Your task to perform on an android device: turn off smart reply in the gmail app Image 0: 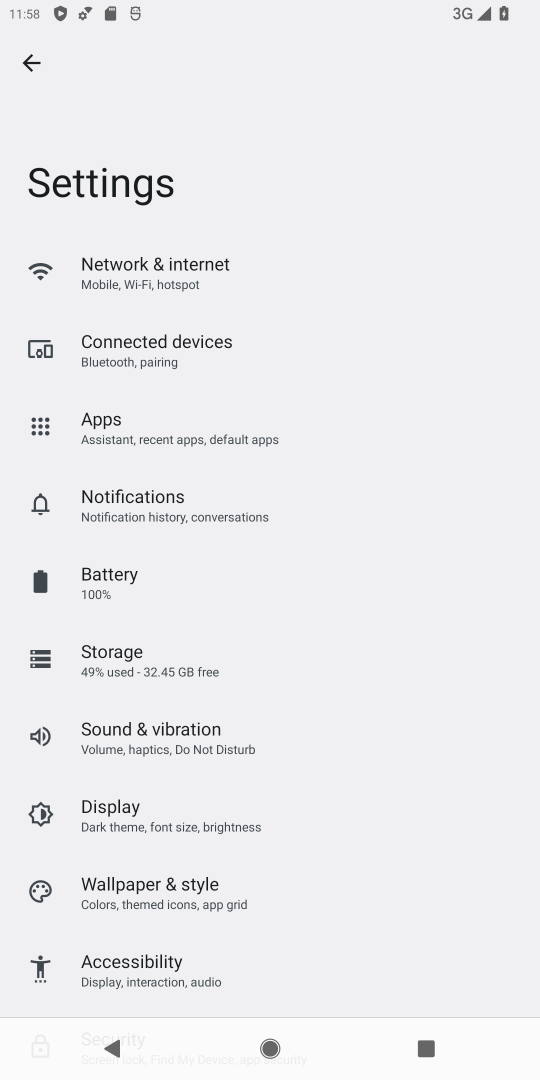
Step 0: press home button
Your task to perform on an android device: turn off smart reply in the gmail app Image 1: 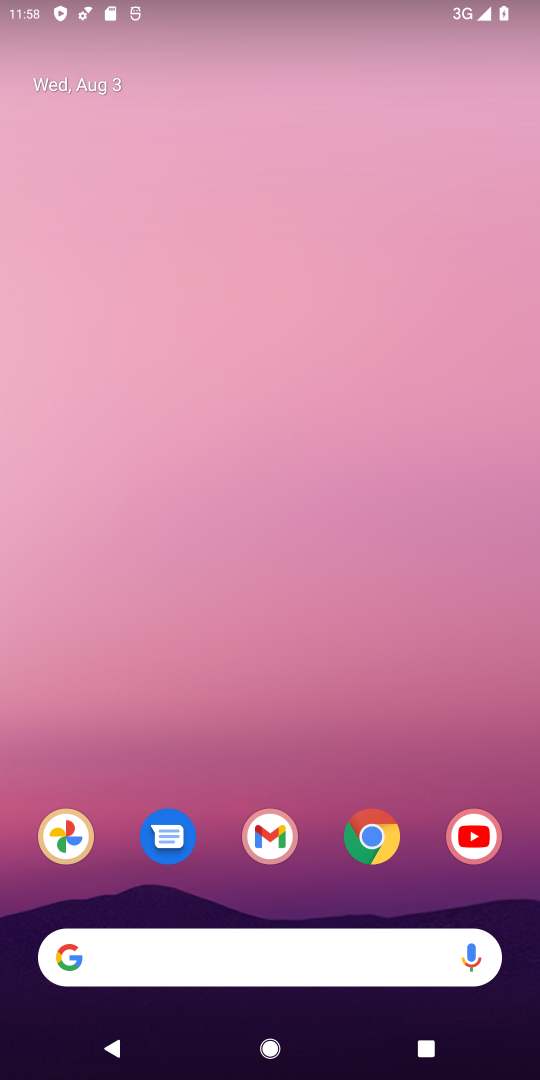
Step 1: drag from (221, 879) to (258, 224)
Your task to perform on an android device: turn off smart reply in the gmail app Image 2: 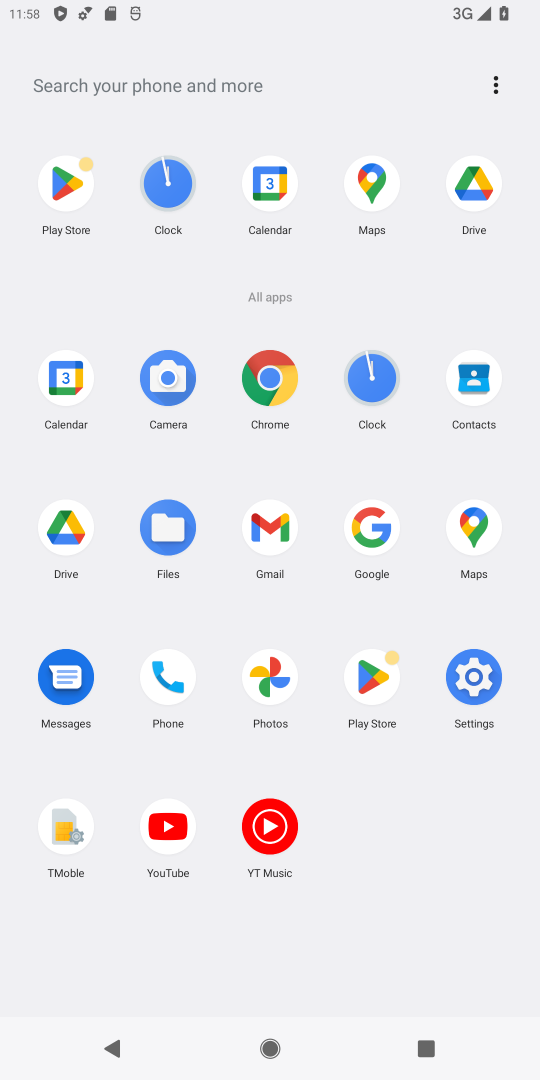
Step 2: click (277, 527)
Your task to perform on an android device: turn off smart reply in the gmail app Image 3: 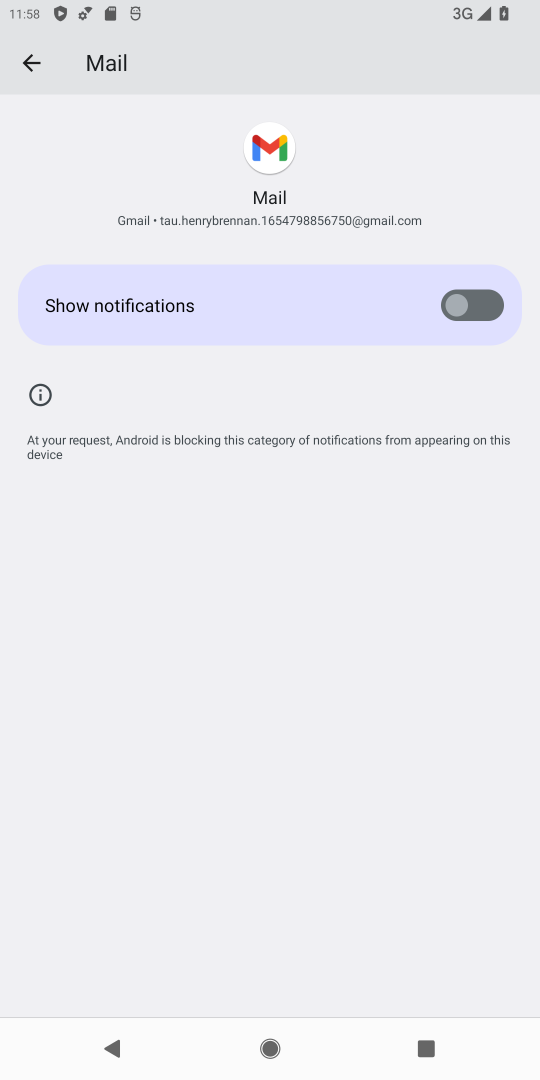
Step 3: drag from (364, 400) to (300, 848)
Your task to perform on an android device: turn off smart reply in the gmail app Image 4: 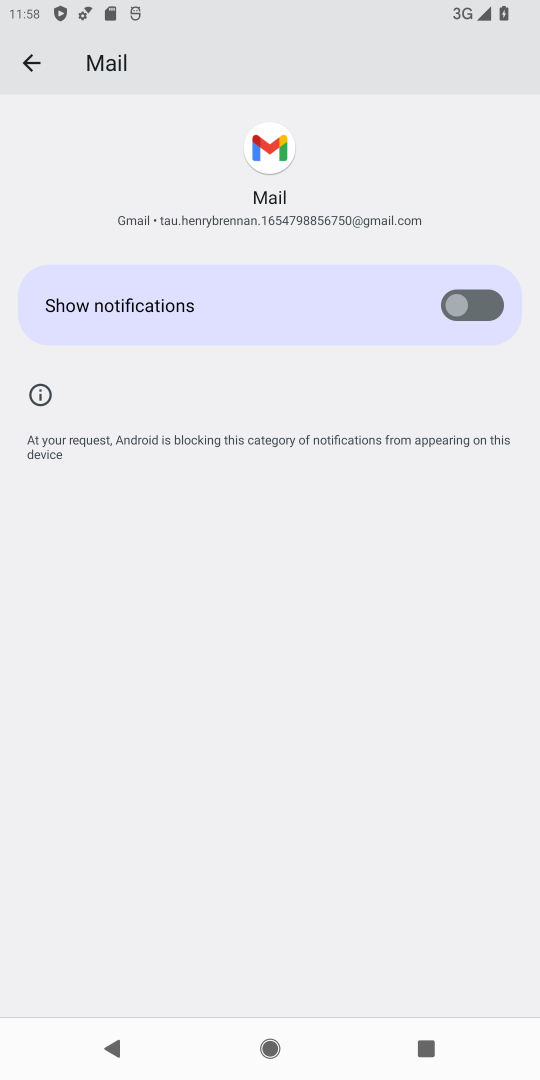
Step 4: drag from (253, 502) to (259, 939)
Your task to perform on an android device: turn off smart reply in the gmail app Image 5: 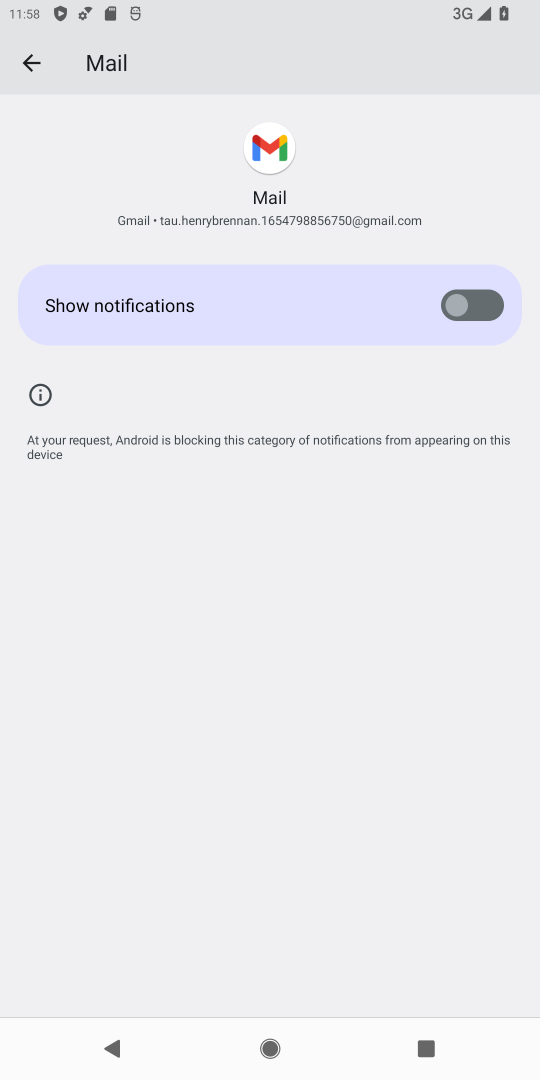
Step 5: drag from (254, 629) to (254, 915)
Your task to perform on an android device: turn off smart reply in the gmail app Image 6: 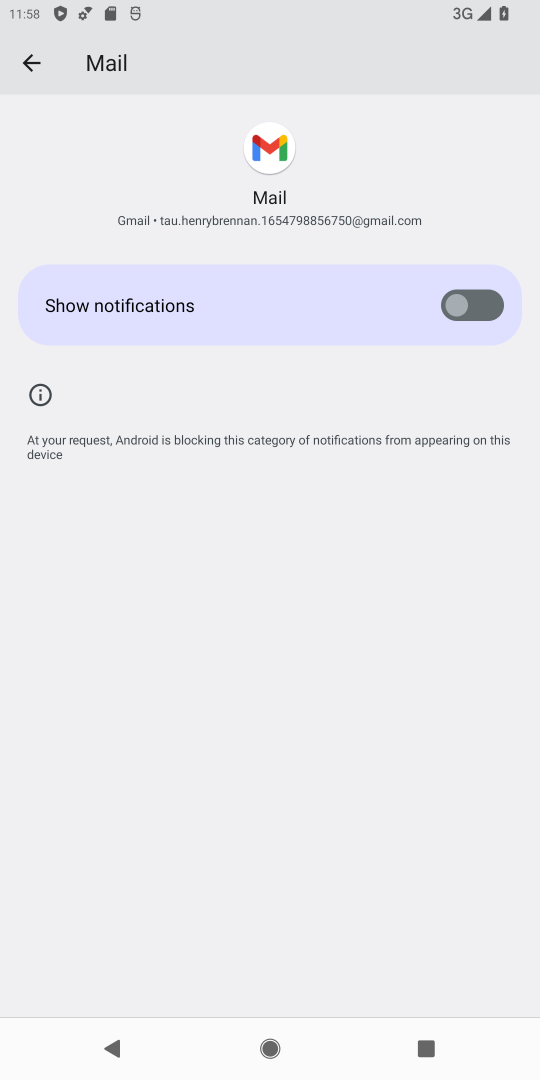
Step 6: drag from (370, 427) to (292, 699)
Your task to perform on an android device: turn off smart reply in the gmail app Image 7: 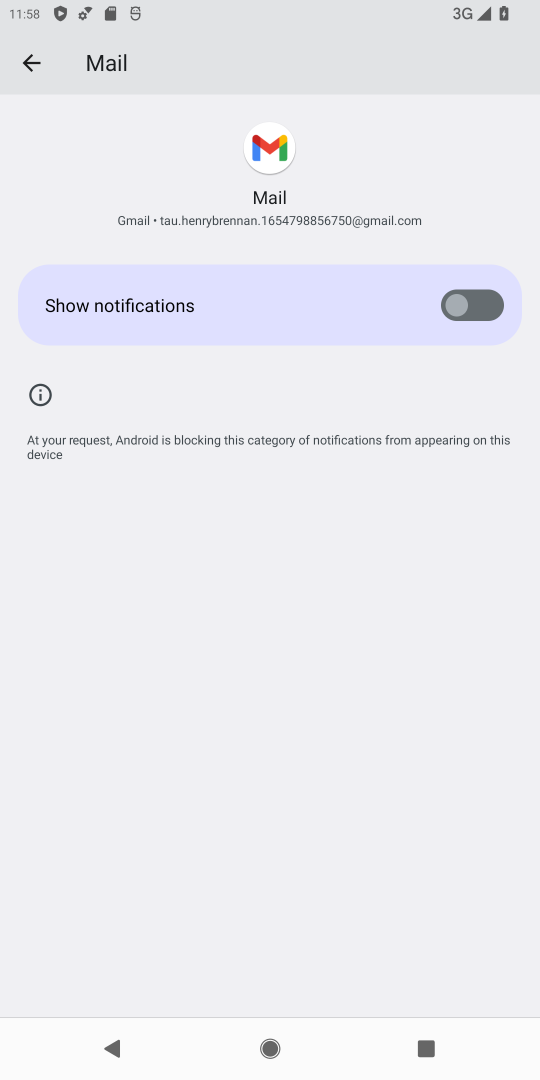
Step 7: drag from (324, 443) to (302, 668)
Your task to perform on an android device: turn off smart reply in the gmail app Image 8: 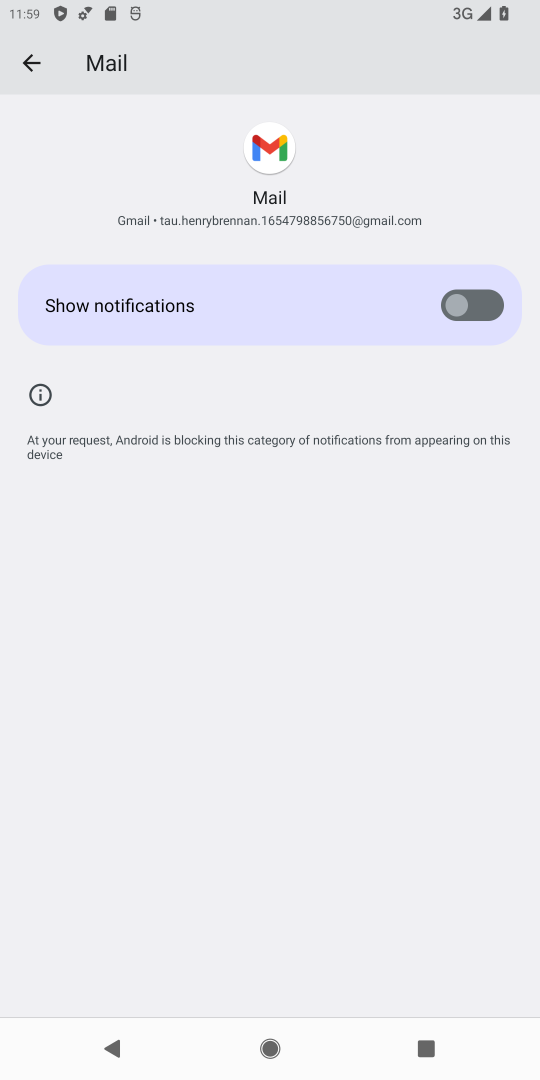
Step 8: drag from (275, 801) to (297, 476)
Your task to perform on an android device: turn off smart reply in the gmail app Image 9: 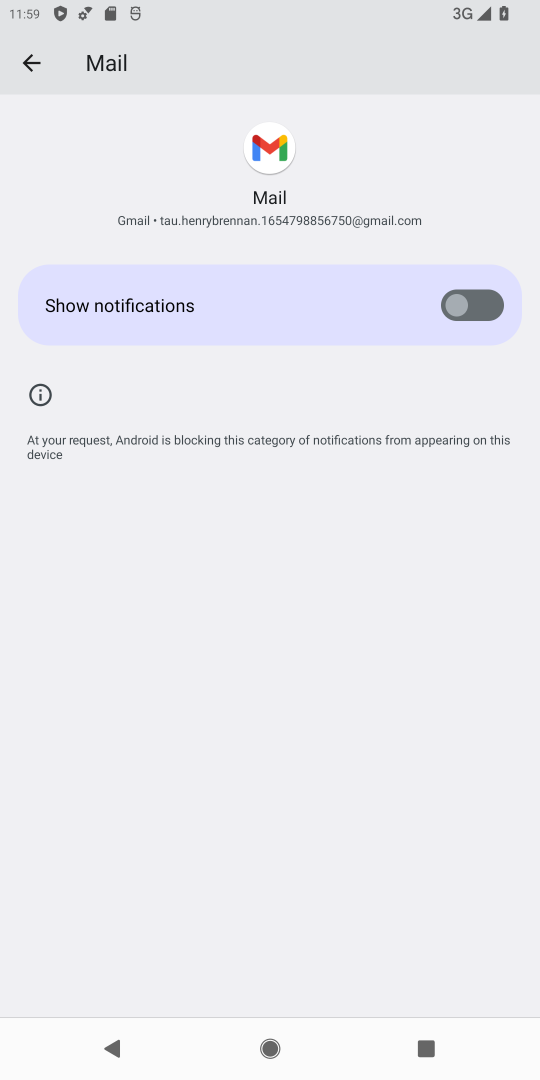
Step 9: drag from (305, 847) to (280, 689)
Your task to perform on an android device: turn off smart reply in the gmail app Image 10: 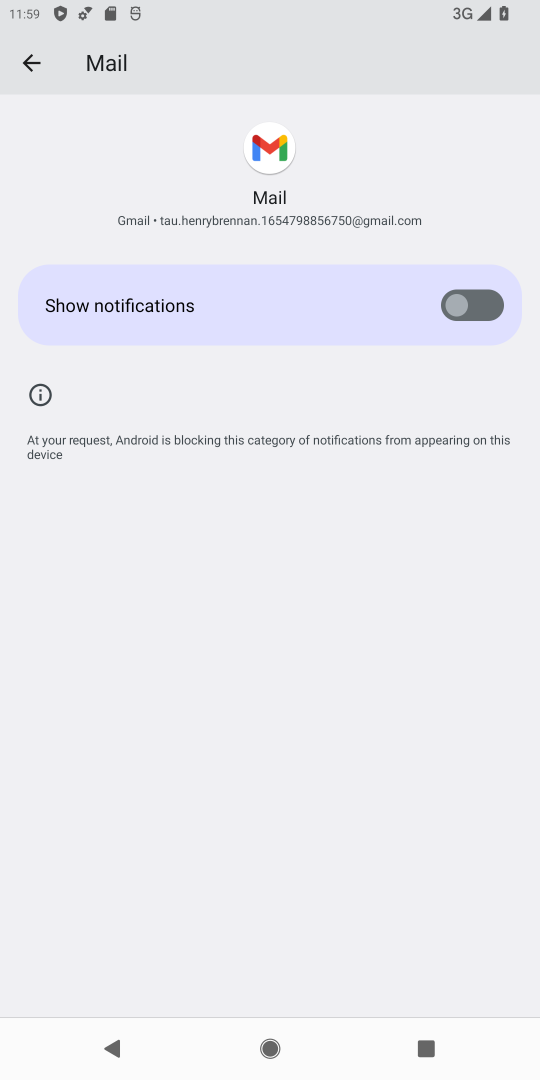
Step 10: click (25, 75)
Your task to perform on an android device: turn off smart reply in the gmail app Image 11: 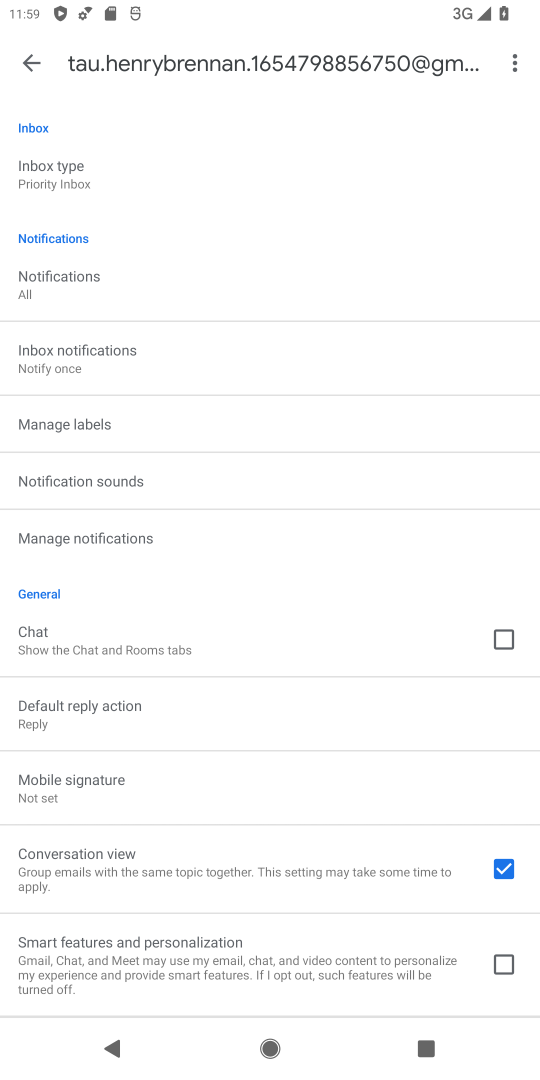
Step 11: drag from (229, 758) to (332, 82)
Your task to perform on an android device: turn off smart reply in the gmail app Image 12: 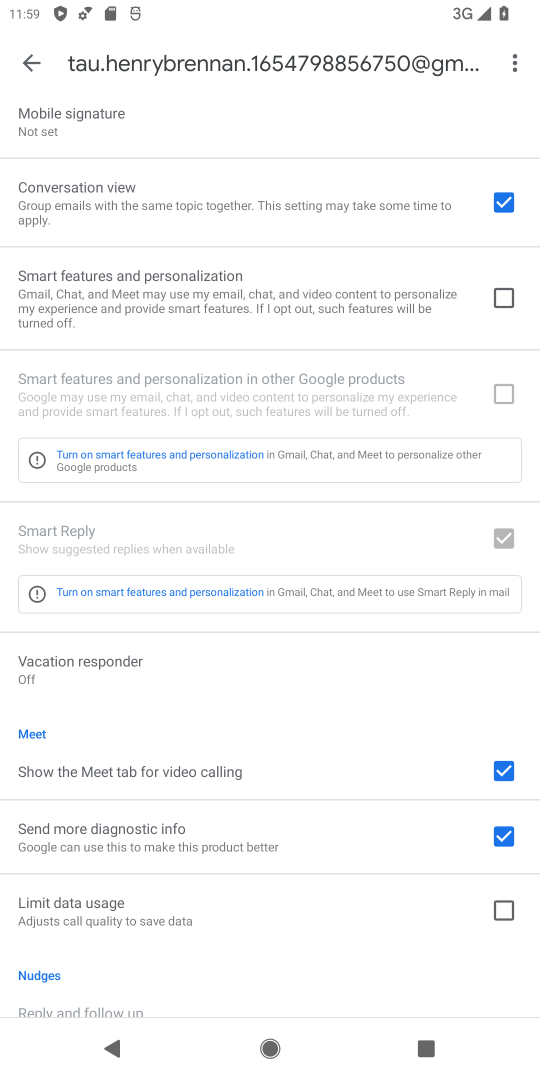
Step 12: click (470, 546)
Your task to perform on an android device: turn off smart reply in the gmail app Image 13: 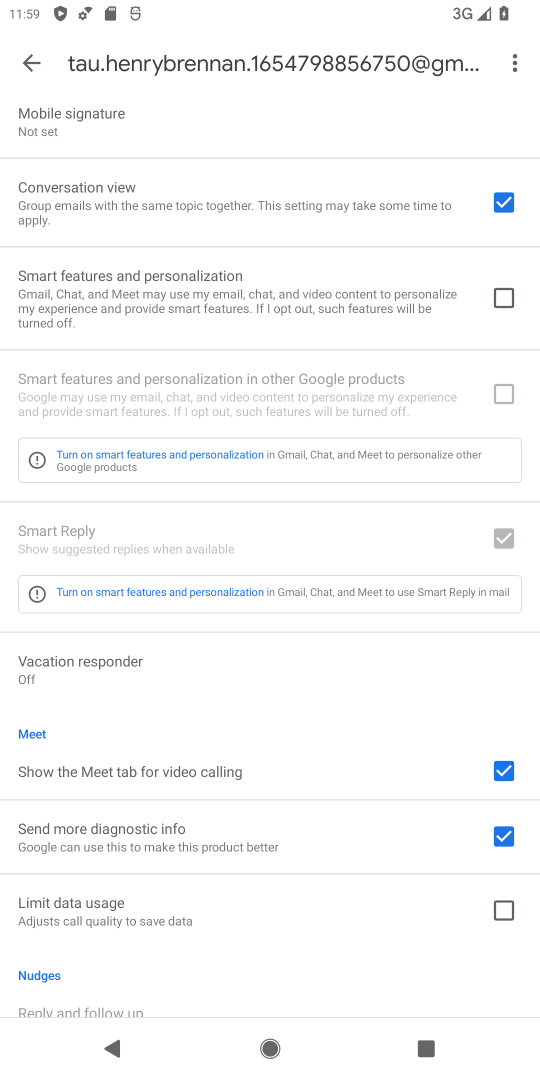
Step 13: click (497, 382)
Your task to perform on an android device: turn off smart reply in the gmail app Image 14: 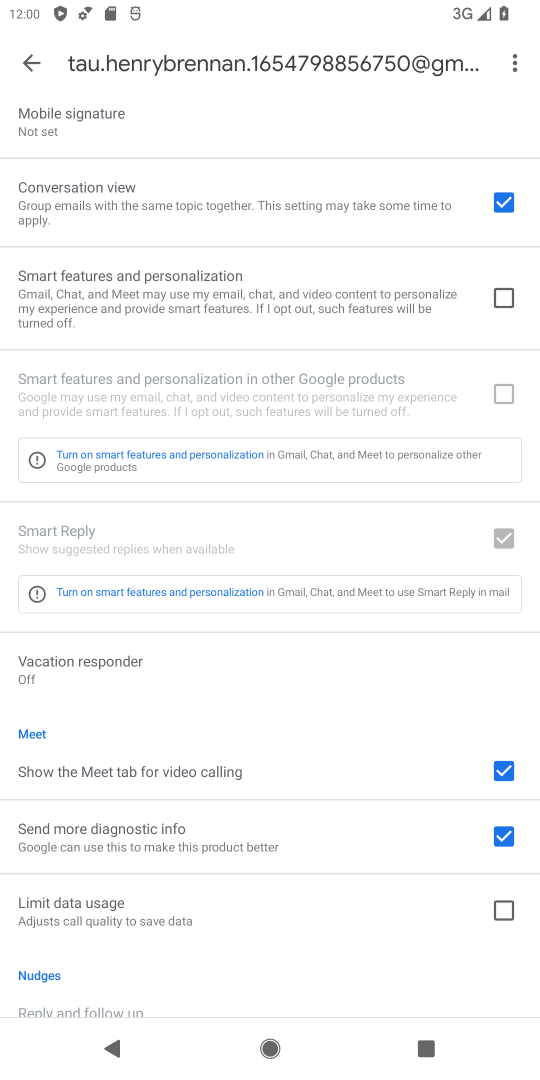
Step 14: click (491, 534)
Your task to perform on an android device: turn off smart reply in the gmail app Image 15: 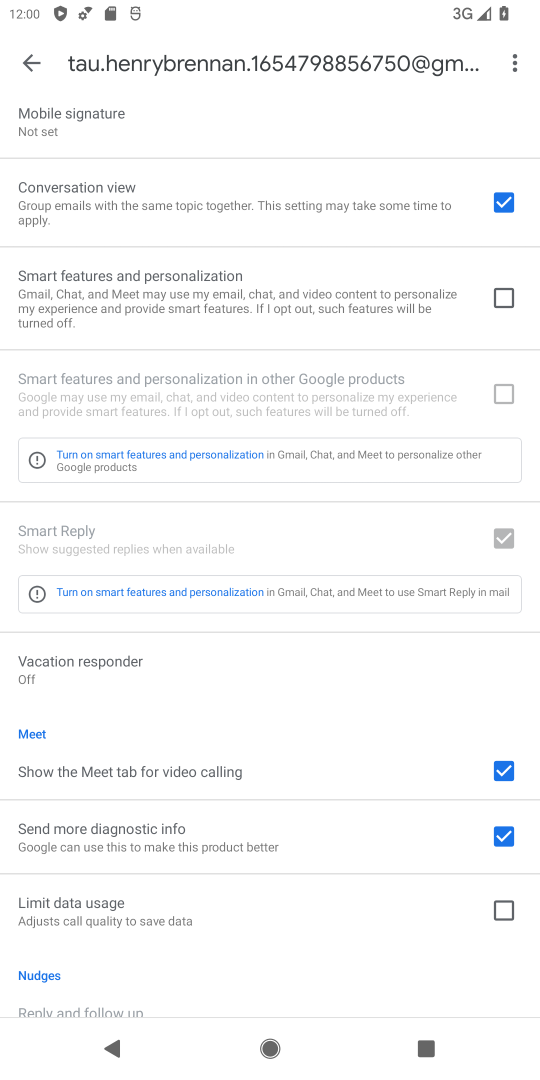
Step 15: task complete